Your task to perform on an android device: open app "Upside-Cash back on gas & food" (install if not already installed) Image 0: 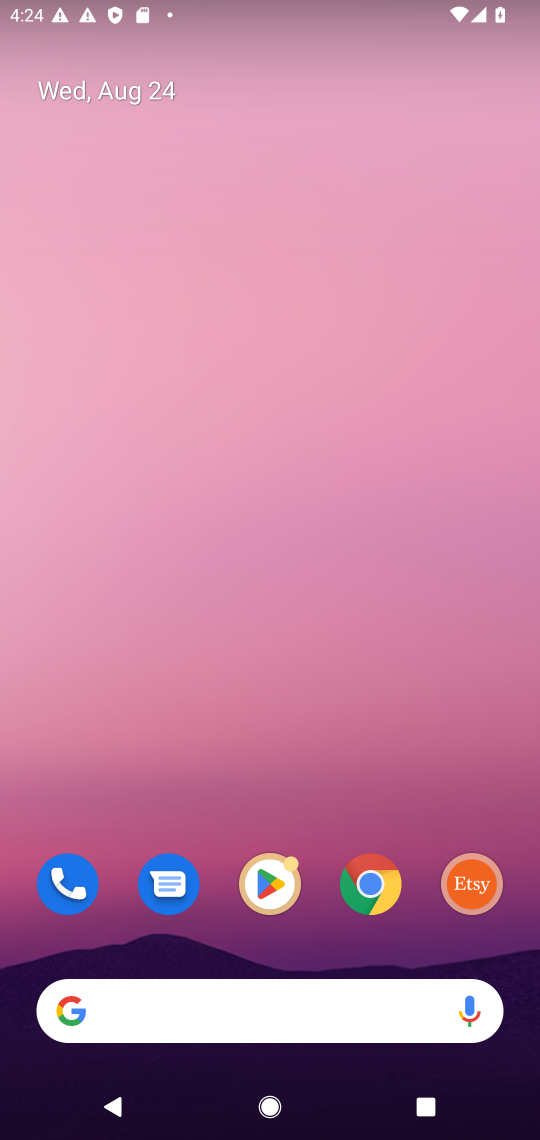
Step 0: click (277, 878)
Your task to perform on an android device: open app "Upside-Cash back on gas & food" (install if not already installed) Image 1: 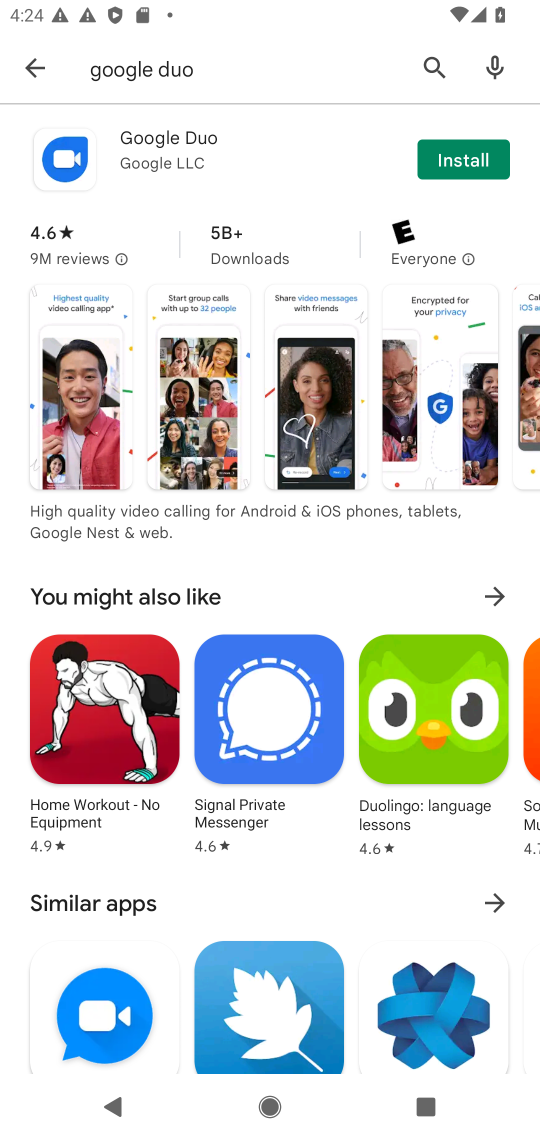
Step 1: click (34, 61)
Your task to perform on an android device: open app "Upside-Cash back on gas & food" (install if not already installed) Image 2: 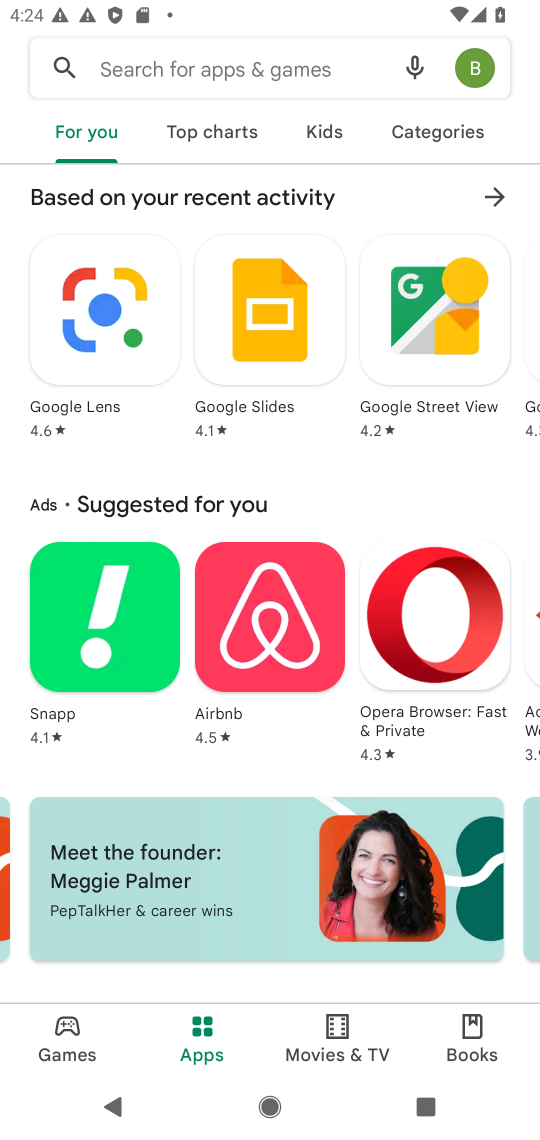
Step 2: click (199, 67)
Your task to perform on an android device: open app "Upside-Cash back on gas & food" (install if not already installed) Image 3: 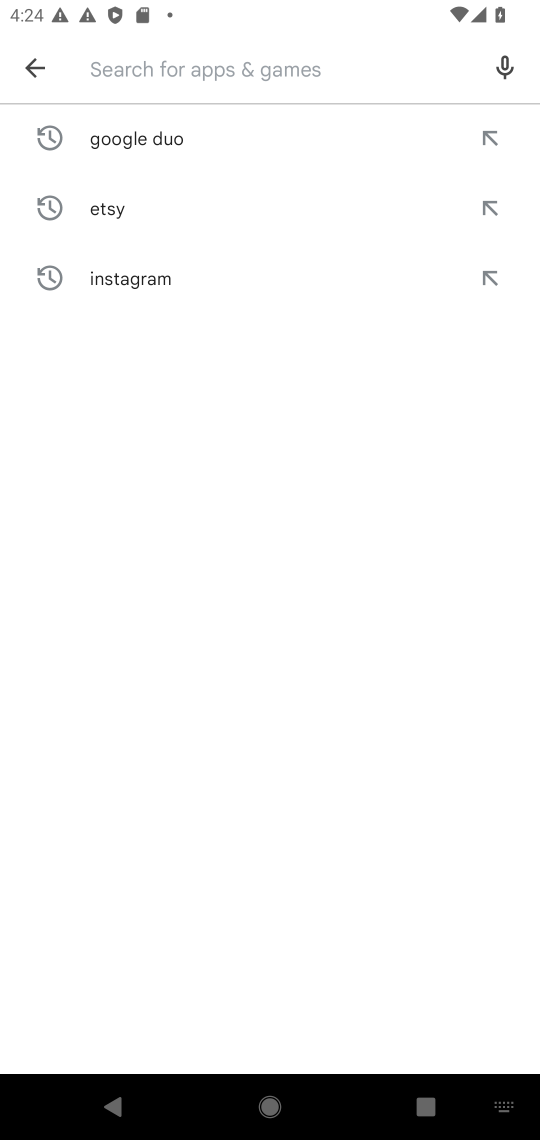
Step 3: type "Upside-Cash back on gas & food"
Your task to perform on an android device: open app "Upside-Cash back on gas & food" (install if not already installed) Image 4: 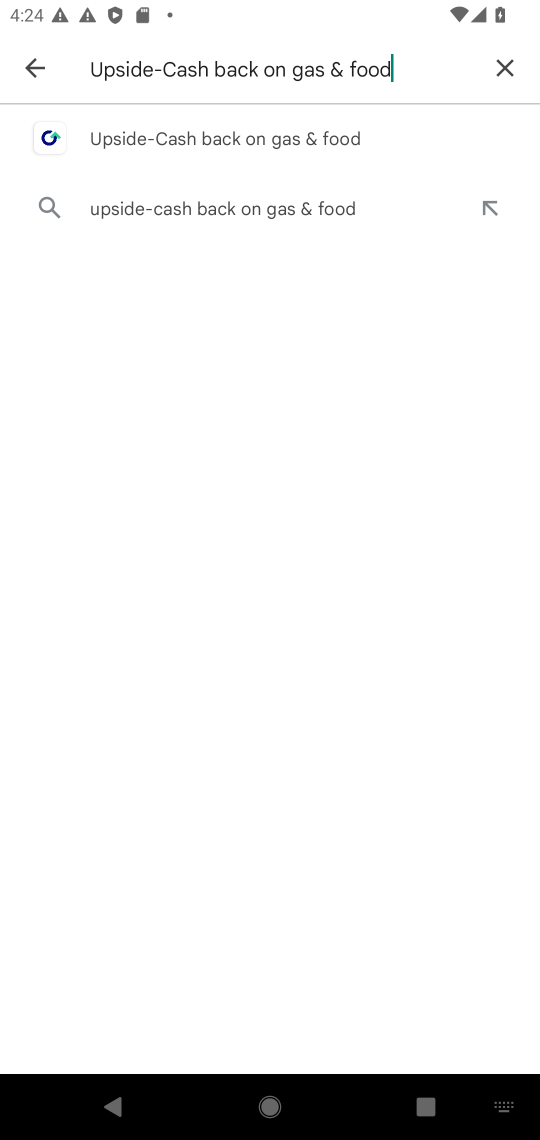
Step 4: click (268, 139)
Your task to perform on an android device: open app "Upside-Cash back on gas & food" (install if not already installed) Image 5: 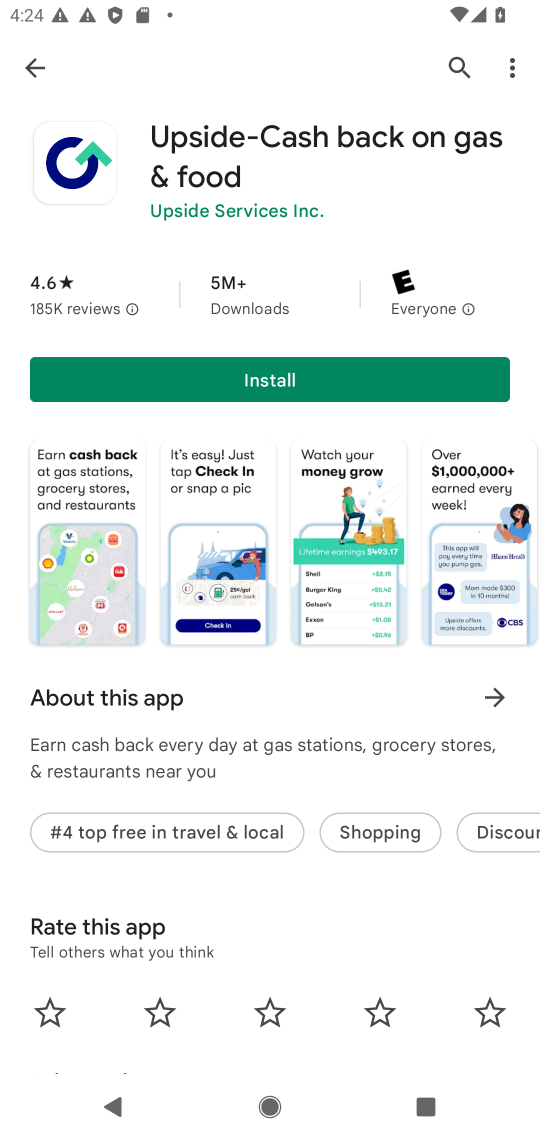
Step 5: click (260, 382)
Your task to perform on an android device: open app "Upside-Cash back on gas & food" (install if not already installed) Image 6: 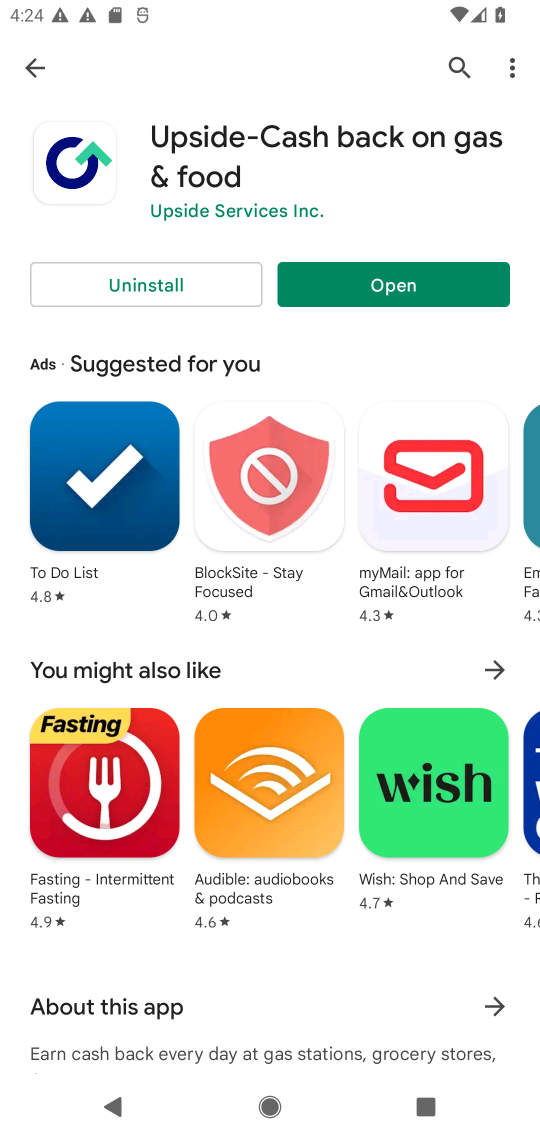
Step 6: click (365, 300)
Your task to perform on an android device: open app "Upside-Cash back on gas & food" (install if not already installed) Image 7: 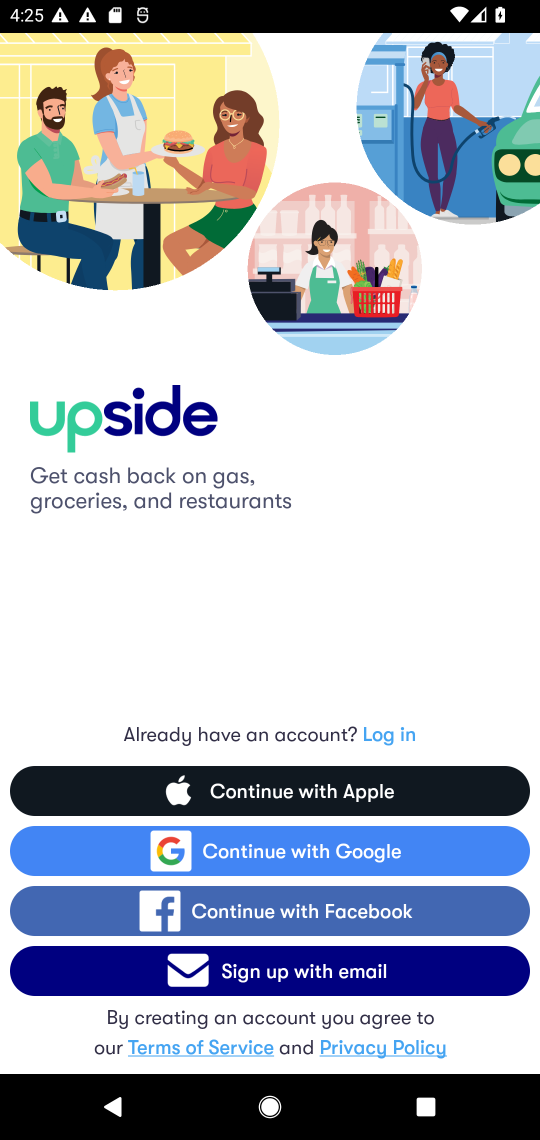
Step 7: task complete